Your task to perform on an android device: Go to settings Image 0: 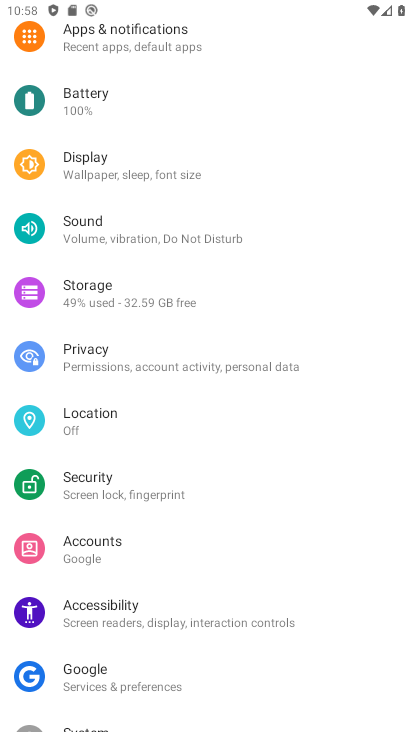
Step 0: task complete